Your task to perform on an android device: see sites visited before in the chrome app Image 0: 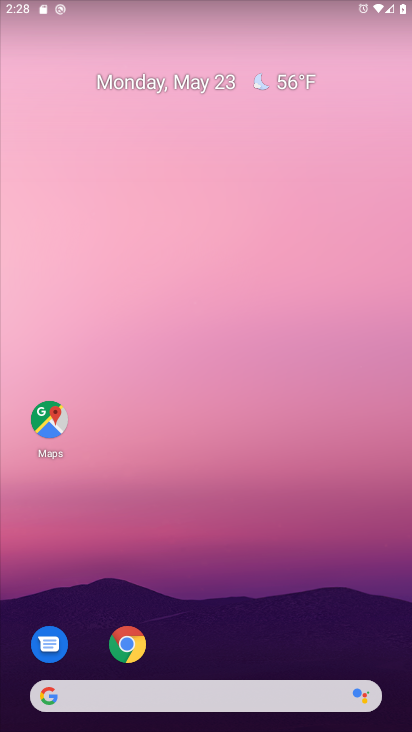
Step 0: drag from (247, 625) to (148, 114)
Your task to perform on an android device: see sites visited before in the chrome app Image 1: 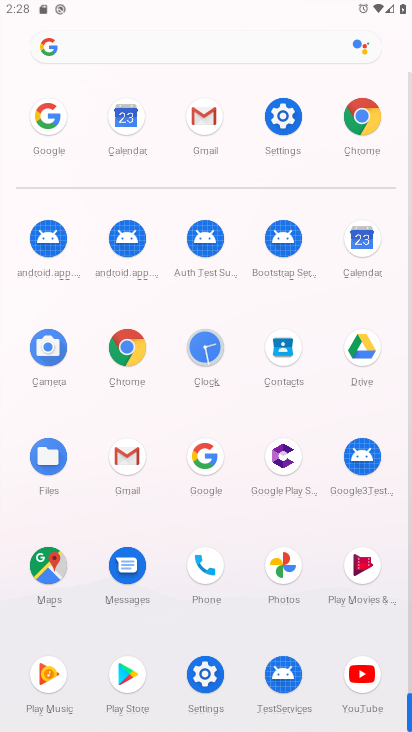
Step 1: click (350, 139)
Your task to perform on an android device: see sites visited before in the chrome app Image 2: 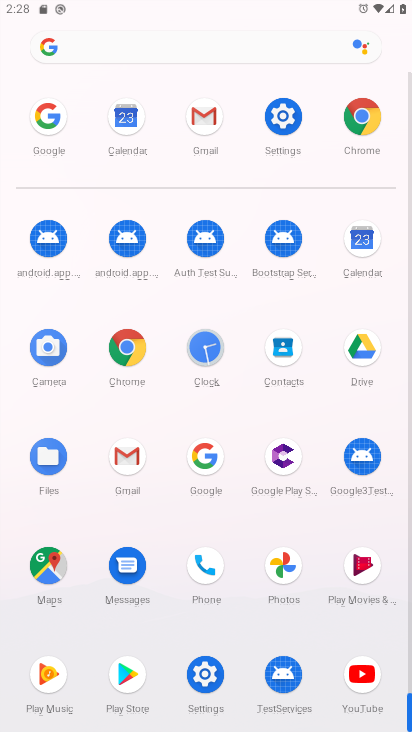
Step 2: click (364, 153)
Your task to perform on an android device: see sites visited before in the chrome app Image 3: 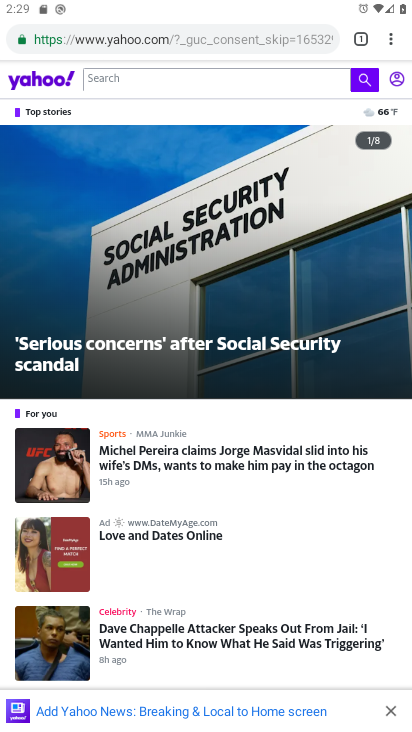
Step 3: click (391, 39)
Your task to perform on an android device: see sites visited before in the chrome app Image 4: 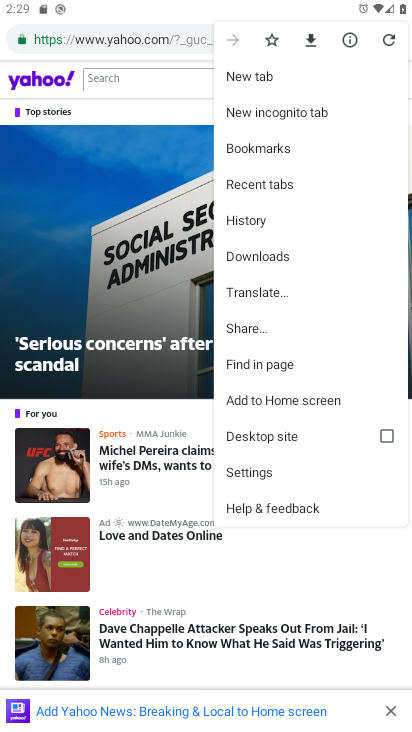
Step 4: click (273, 223)
Your task to perform on an android device: see sites visited before in the chrome app Image 5: 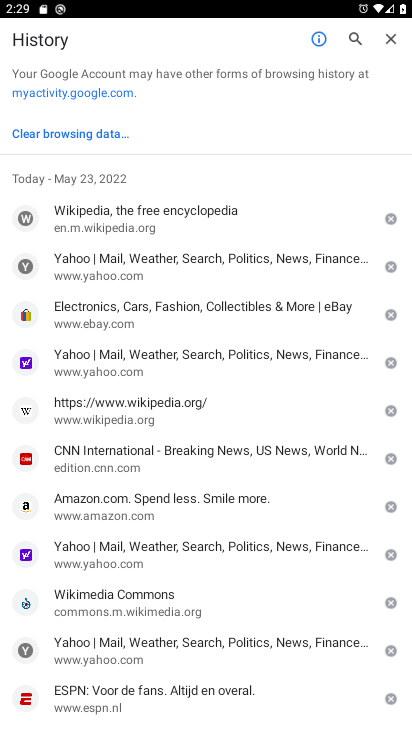
Step 5: task complete